Your task to perform on an android device: see creations saved in the google photos Image 0: 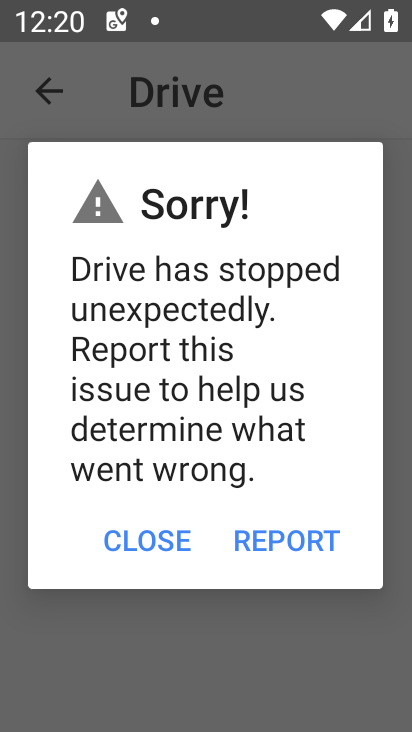
Step 0: press home button
Your task to perform on an android device: see creations saved in the google photos Image 1: 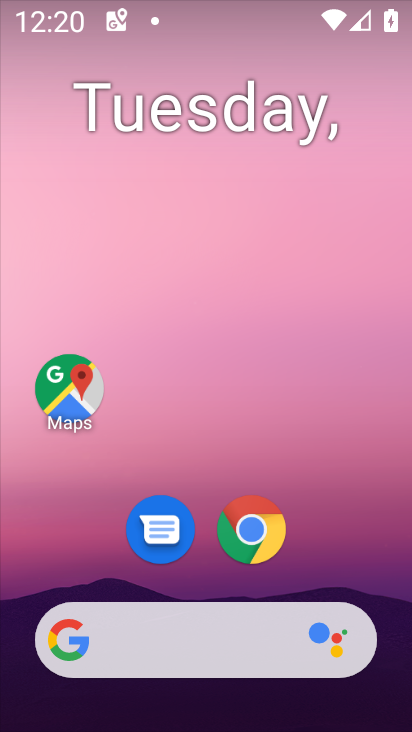
Step 1: drag from (198, 565) to (265, 59)
Your task to perform on an android device: see creations saved in the google photos Image 2: 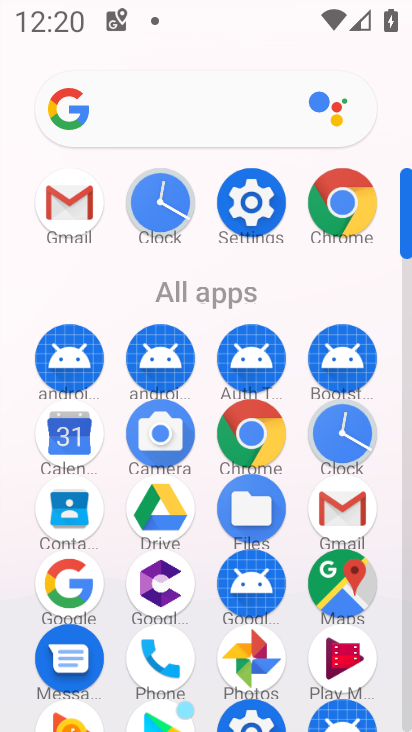
Step 2: click (242, 668)
Your task to perform on an android device: see creations saved in the google photos Image 3: 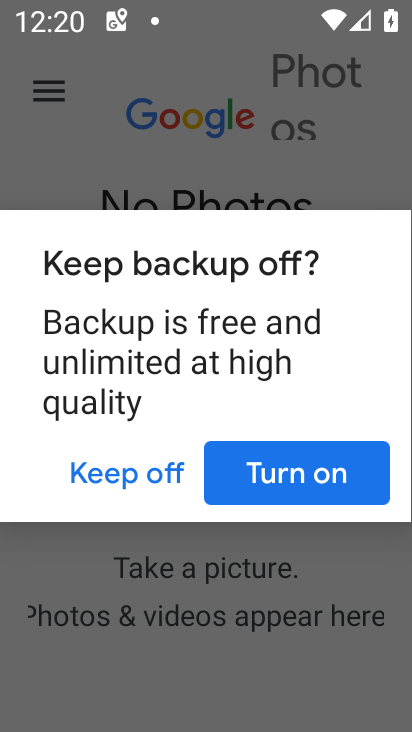
Step 3: click (261, 482)
Your task to perform on an android device: see creations saved in the google photos Image 4: 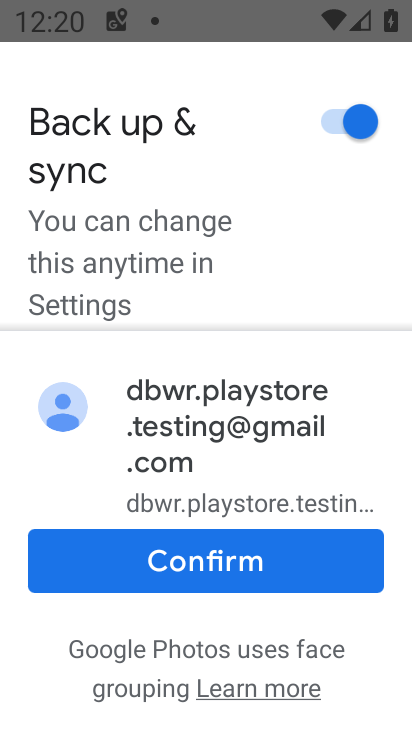
Step 4: click (229, 551)
Your task to perform on an android device: see creations saved in the google photos Image 5: 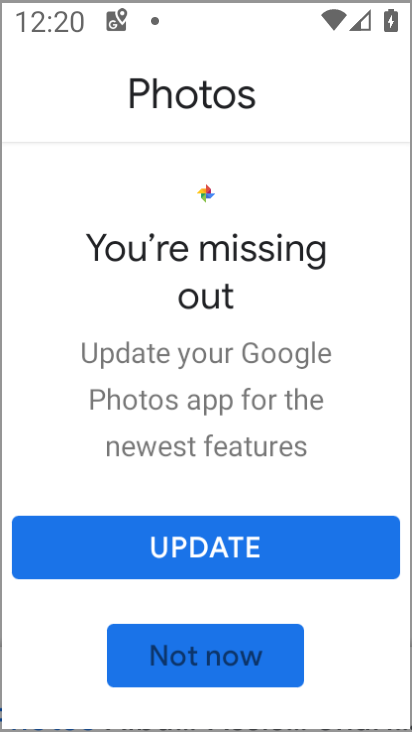
Step 5: click (52, 100)
Your task to perform on an android device: see creations saved in the google photos Image 6: 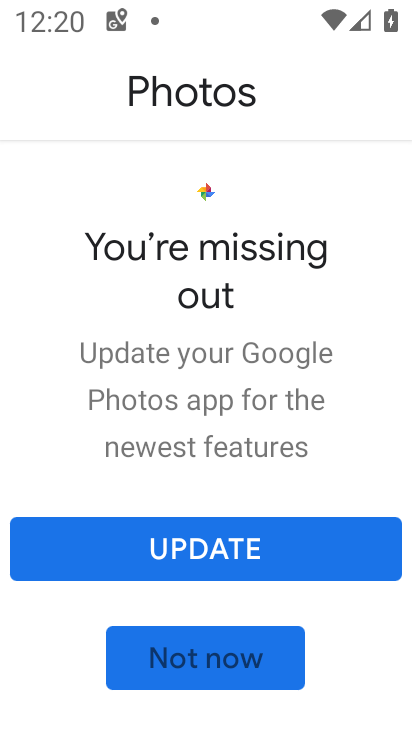
Step 6: click (176, 641)
Your task to perform on an android device: see creations saved in the google photos Image 7: 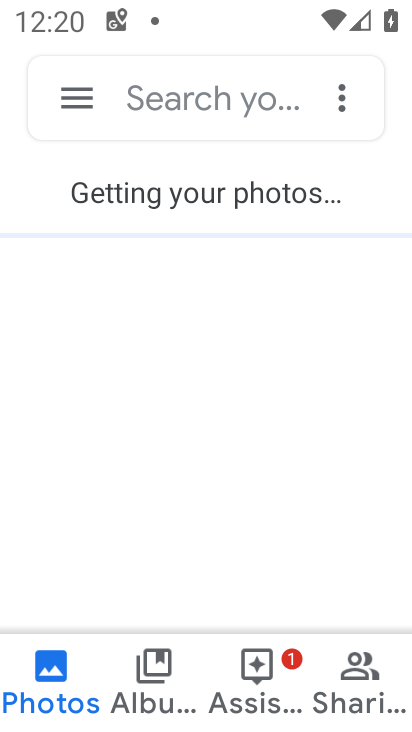
Step 7: click (72, 92)
Your task to perform on an android device: see creations saved in the google photos Image 8: 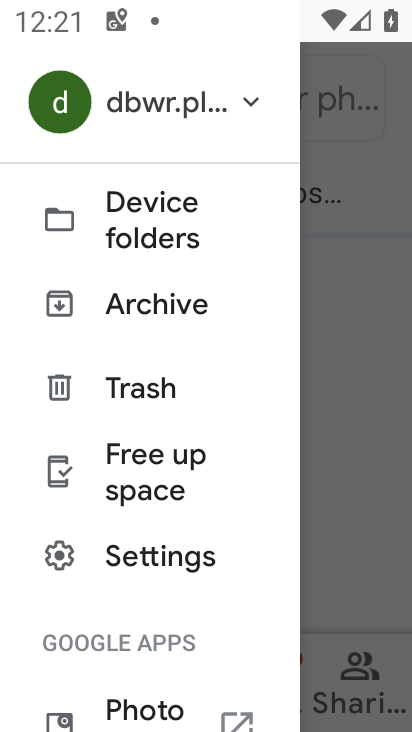
Step 8: click (191, 310)
Your task to perform on an android device: see creations saved in the google photos Image 9: 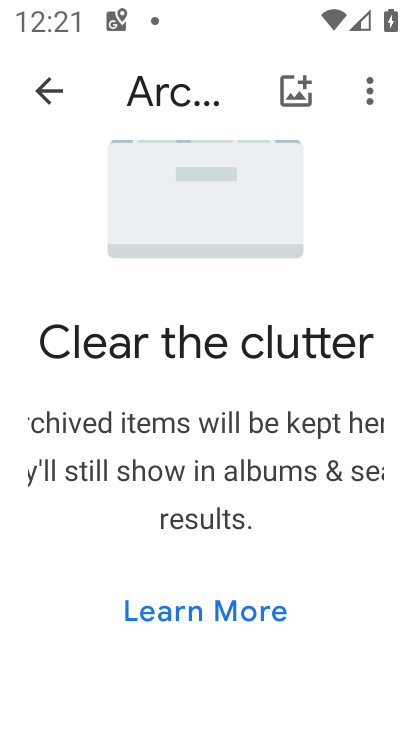
Step 9: task complete